Your task to perform on an android device: Is it going to rain this weekend? Image 0: 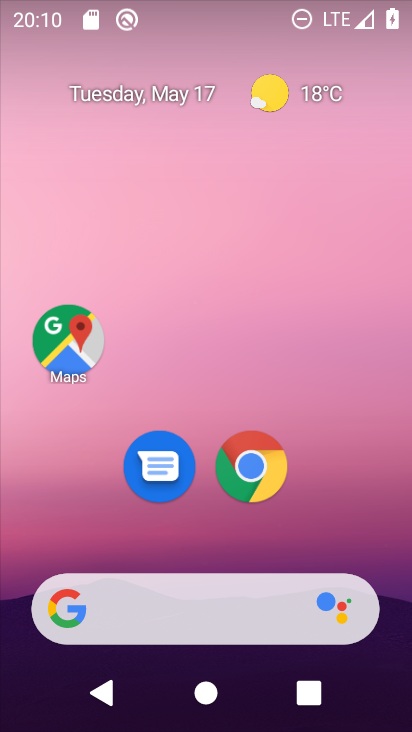
Step 0: click (315, 91)
Your task to perform on an android device: Is it going to rain this weekend? Image 1: 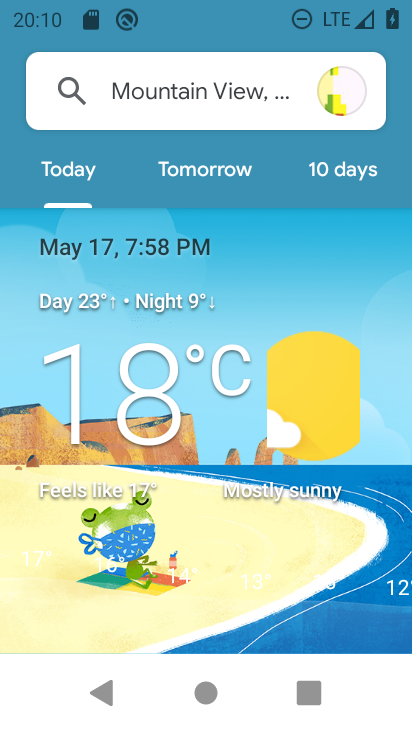
Step 1: click (341, 163)
Your task to perform on an android device: Is it going to rain this weekend? Image 2: 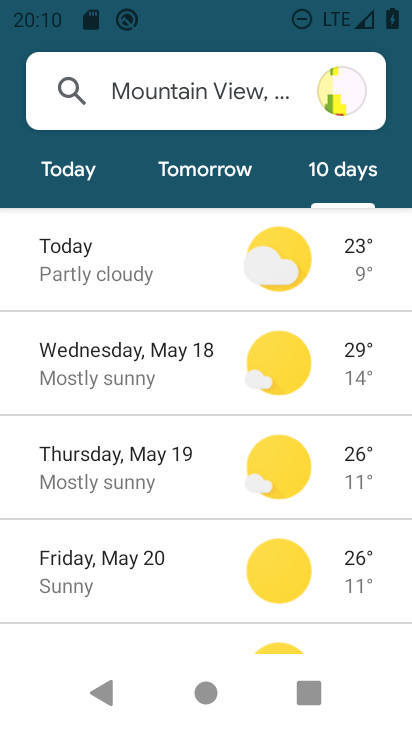
Step 2: task complete